Your task to perform on an android device: clear history in the chrome app Image 0: 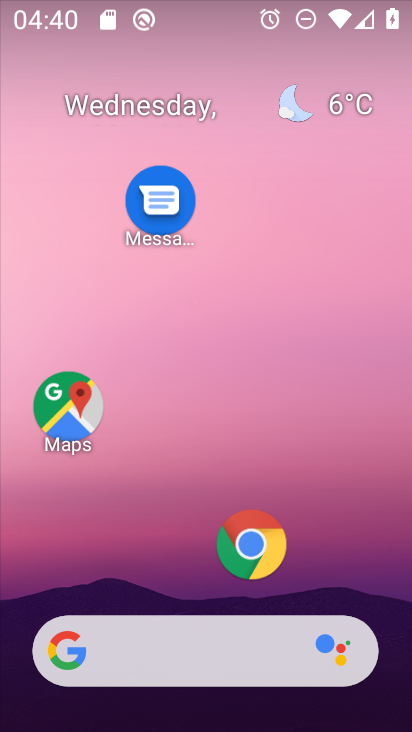
Step 0: click (256, 540)
Your task to perform on an android device: clear history in the chrome app Image 1: 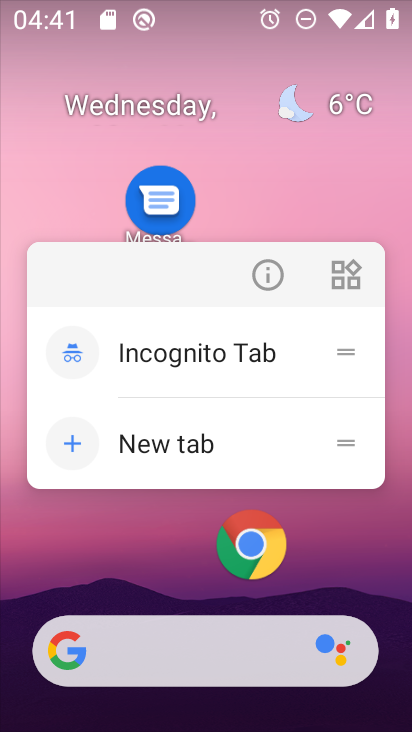
Step 1: click (257, 541)
Your task to perform on an android device: clear history in the chrome app Image 2: 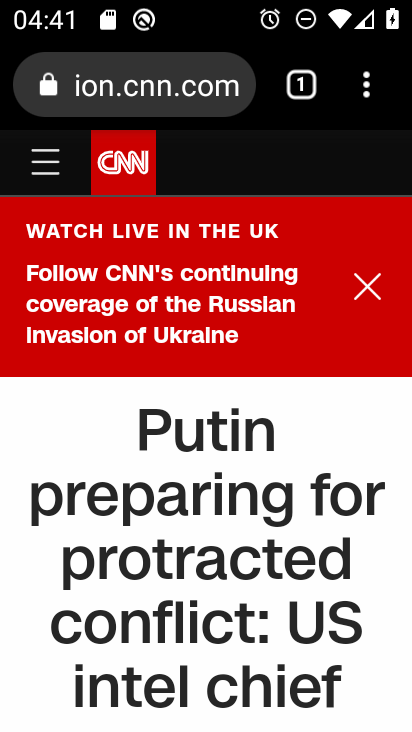
Step 2: click (376, 110)
Your task to perform on an android device: clear history in the chrome app Image 3: 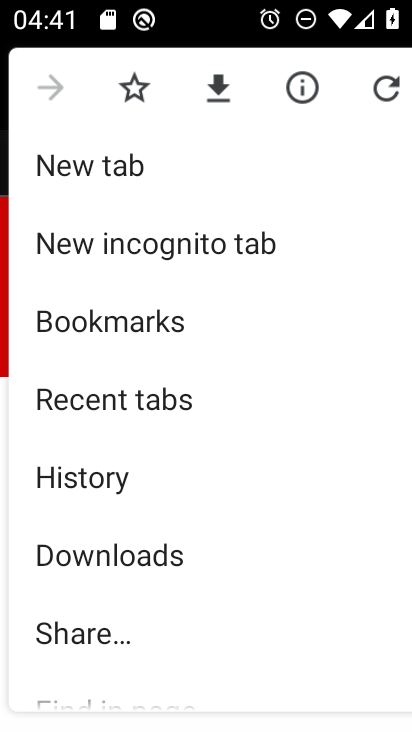
Step 3: click (88, 514)
Your task to perform on an android device: clear history in the chrome app Image 4: 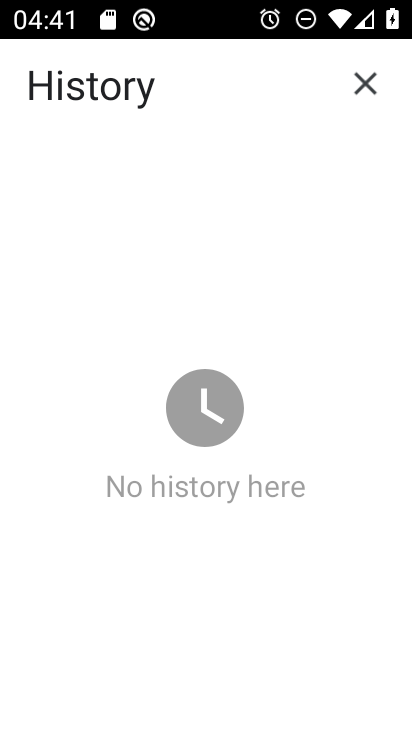
Step 4: task complete